Your task to perform on an android device: Set the phone to "Do not disturb". Image 0: 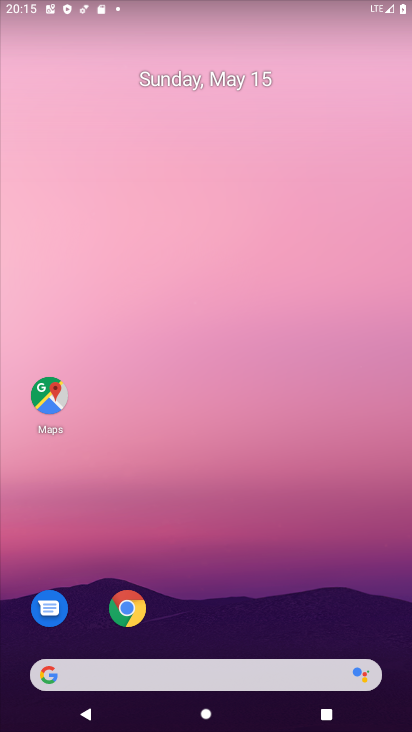
Step 0: drag from (266, 606) to (249, 145)
Your task to perform on an android device: Set the phone to "Do not disturb". Image 1: 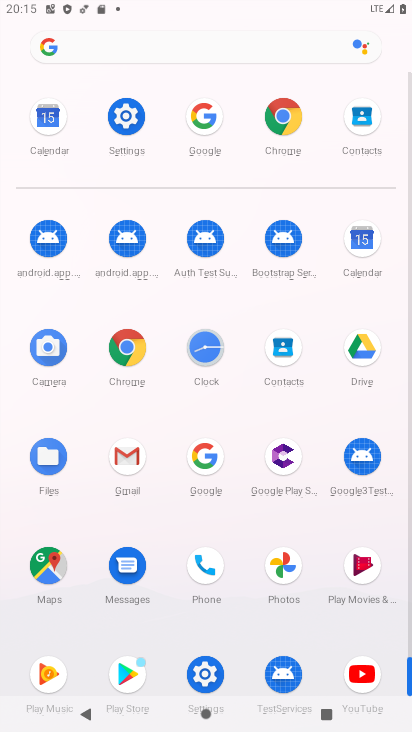
Step 1: click (118, 115)
Your task to perform on an android device: Set the phone to "Do not disturb". Image 2: 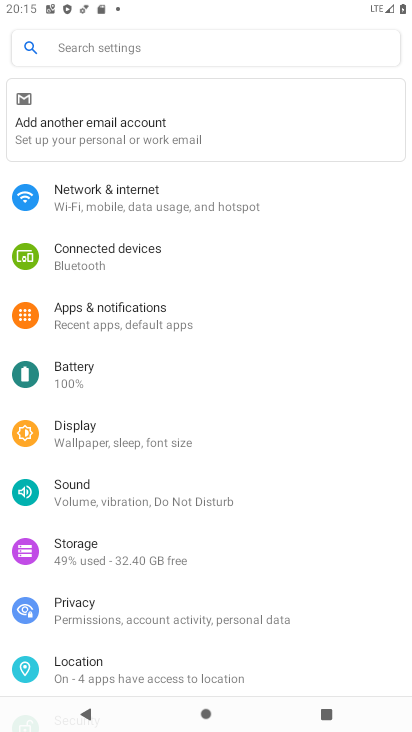
Step 2: click (135, 476)
Your task to perform on an android device: Set the phone to "Do not disturb". Image 3: 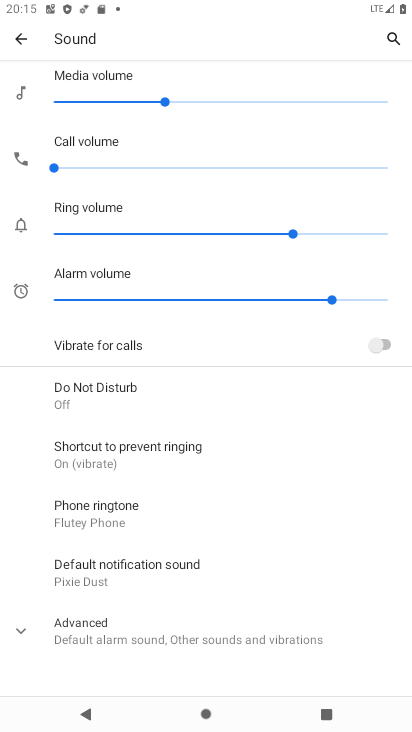
Step 3: click (145, 392)
Your task to perform on an android device: Set the phone to "Do not disturb". Image 4: 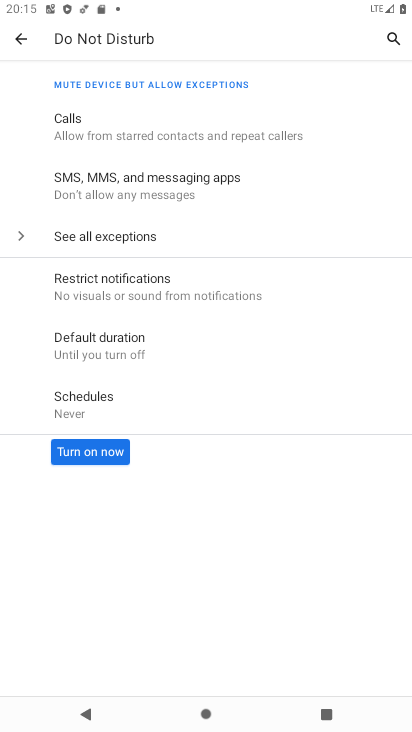
Step 4: click (99, 444)
Your task to perform on an android device: Set the phone to "Do not disturb". Image 5: 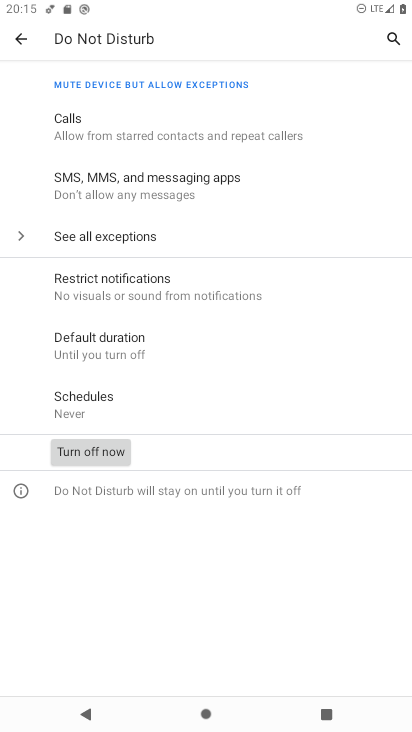
Step 5: task complete